Your task to perform on an android device: Open settings on Google Maps Image 0: 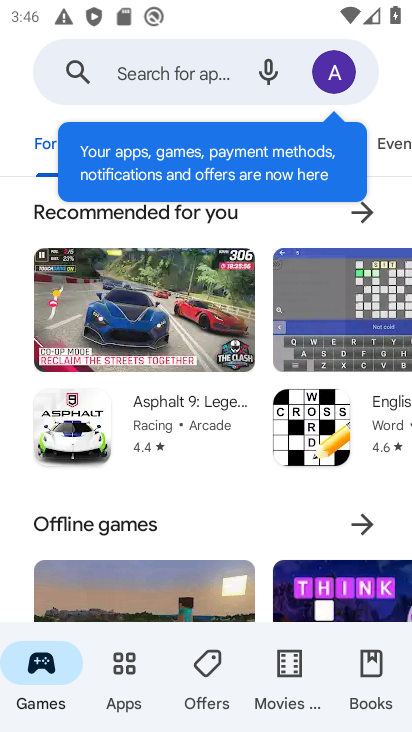
Step 0: press home button
Your task to perform on an android device: Open settings on Google Maps Image 1: 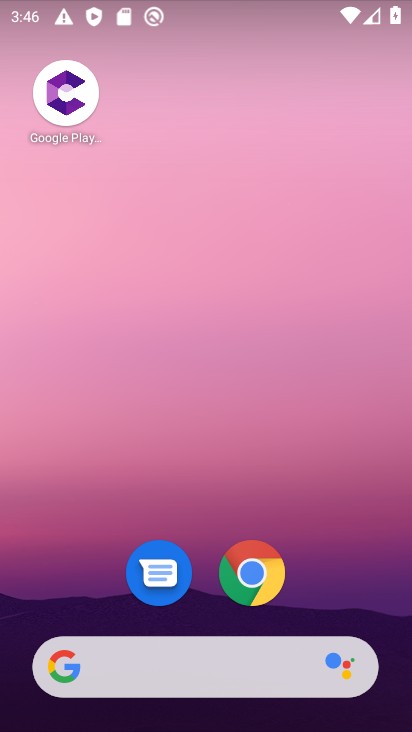
Step 1: drag from (364, 572) to (336, 37)
Your task to perform on an android device: Open settings on Google Maps Image 2: 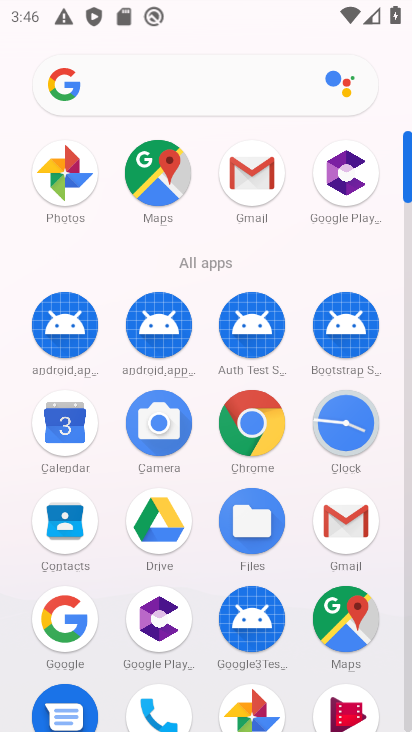
Step 2: click (323, 618)
Your task to perform on an android device: Open settings on Google Maps Image 3: 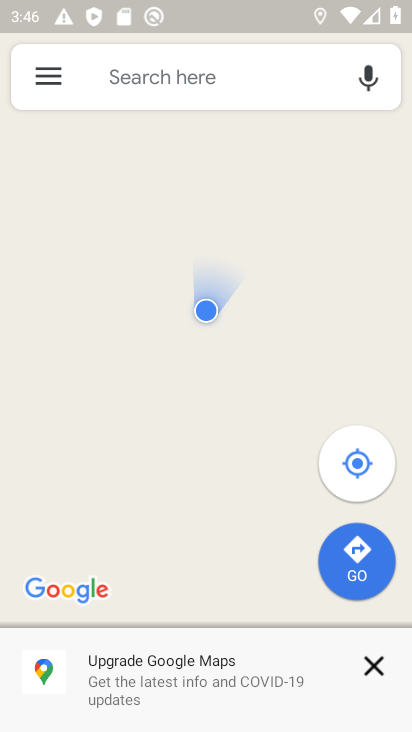
Step 3: click (45, 82)
Your task to perform on an android device: Open settings on Google Maps Image 4: 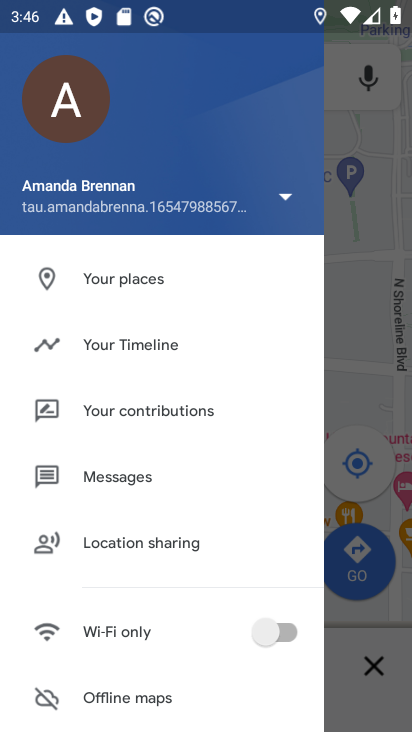
Step 4: drag from (217, 560) to (222, 173)
Your task to perform on an android device: Open settings on Google Maps Image 5: 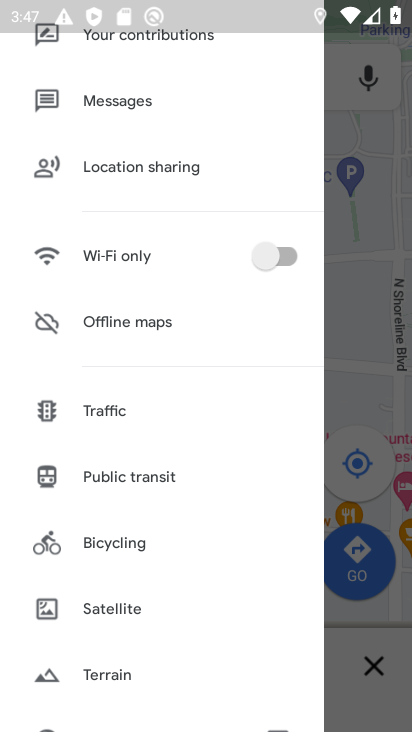
Step 5: drag from (193, 484) to (144, 7)
Your task to perform on an android device: Open settings on Google Maps Image 6: 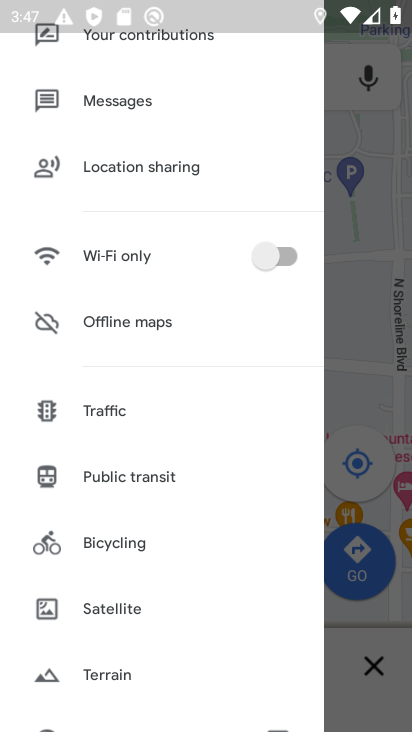
Step 6: drag from (153, 231) to (237, 5)
Your task to perform on an android device: Open settings on Google Maps Image 7: 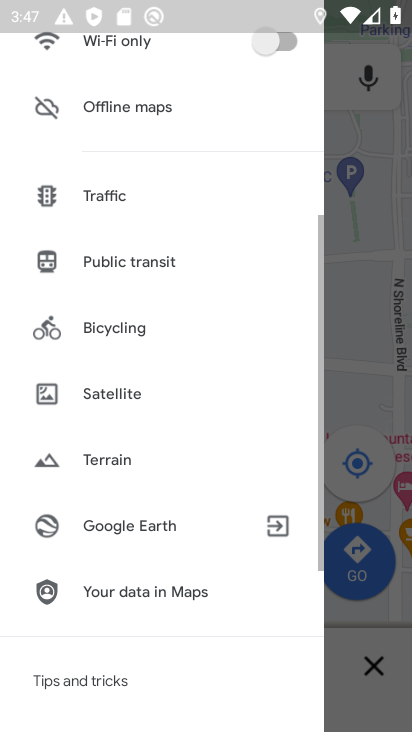
Step 7: drag from (157, 463) to (290, 12)
Your task to perform on an android device: Open settings on Google Maps Image 8: 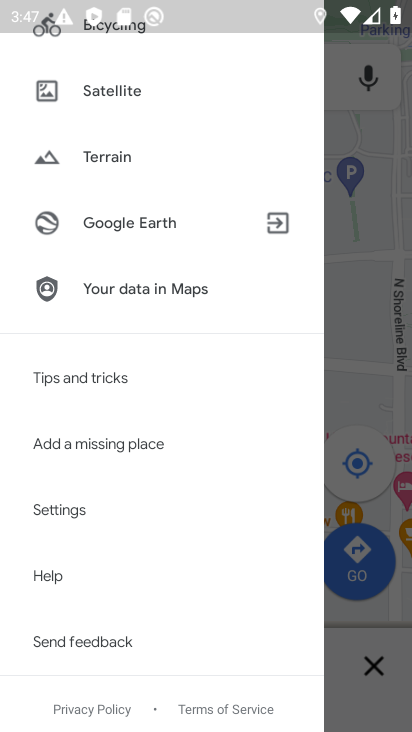
Step 8: click (113, 501)
Your task to perform on an android device: Open settings on Google Maps Image 9: 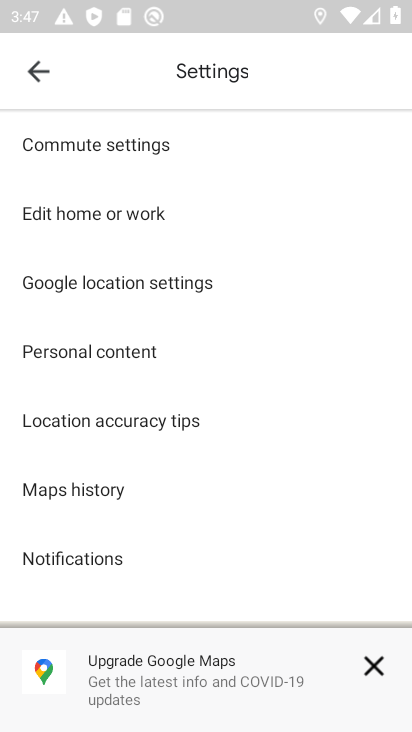
Step 9: task complete